Your task to perform on an android device: turn on notifications settings in the gmail app Image 0: 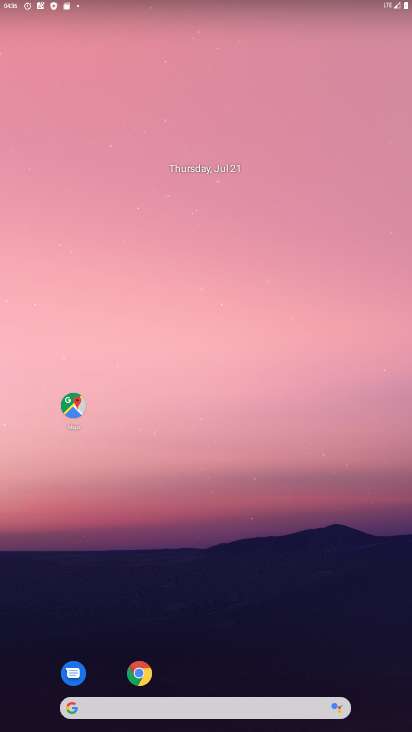
Step 0: drag from (295, 609) to (235, 137)
Your task to perform on an android device: turn on notifications settings in the gmail app Image 1: 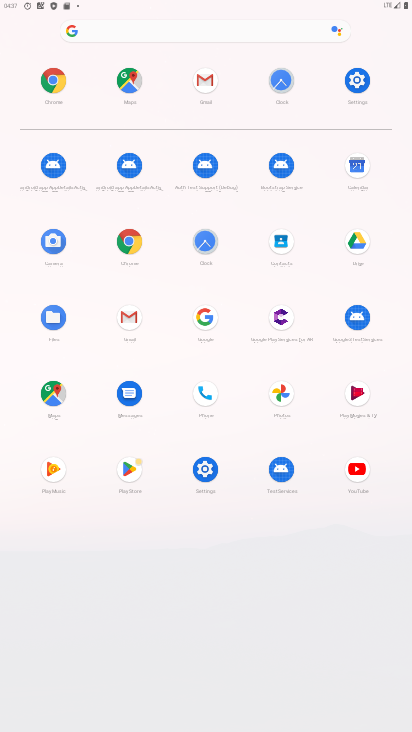
Step 1: click (129, 316)
Your task to perform on an android device: turn on notifications settings in the gmail app Image 2: 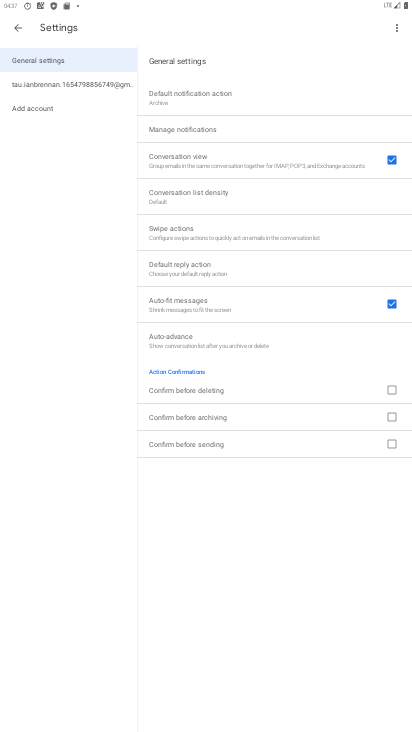
Step 2: click (77, 86)
Your task to perform on an android device: turn on notifications settings in the gmail app Image 3: 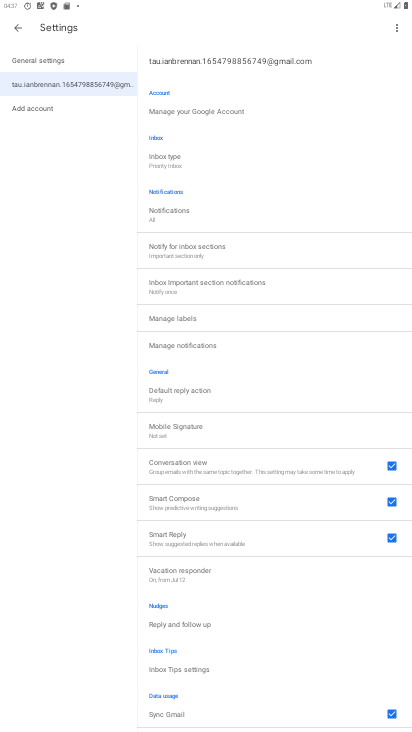
Step 3: click (190, 350)
Your task to perform on an android device: turn on notifications settings in the gmail app Image 4: 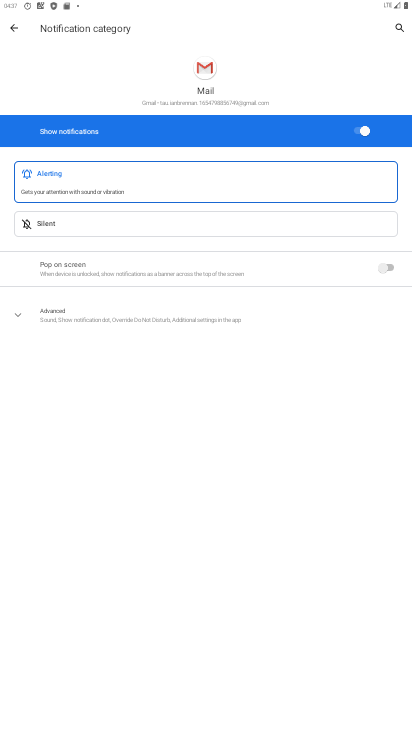
Step 4: task complete